Your task to perform on an android device: Go to accessibility settings Image 0: 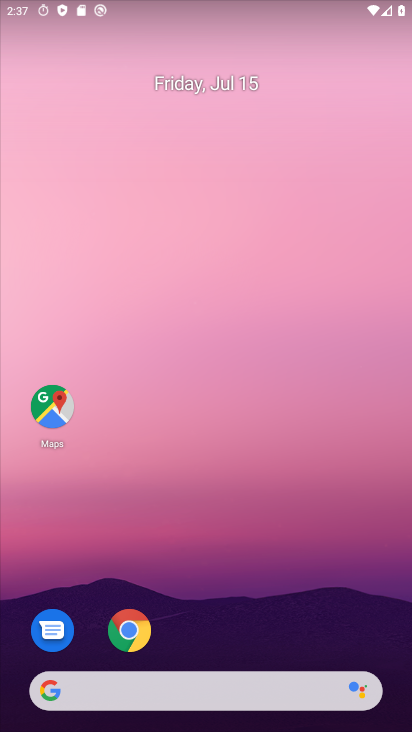
Step 0: drag from (255, 636) to (367, 13)
Your task to perform on an android device: Go to accessibility settings Image 1: 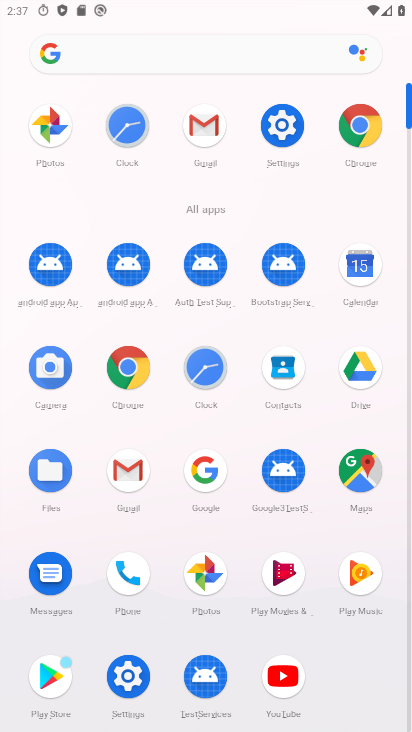
Step 1: click (282, 123)
Your task to perform on an android device: Go to accessibility settings Image 2: 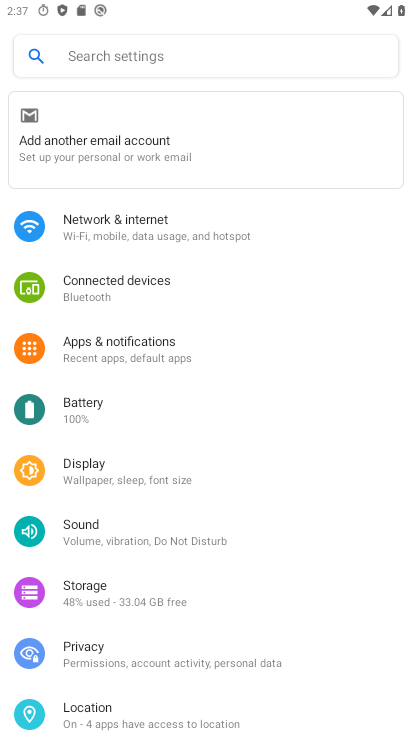
Step 2: drag from (163, 654) to (159, 239)
Your task to perform on an android device: Go to accessibility settings Image 3: 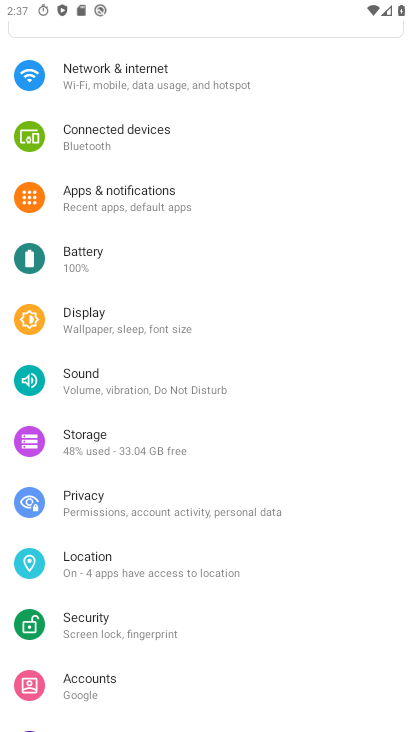
Step 3: click (208, 5)
Your task to perform on an android device: Go to accessibility settings Image 4: 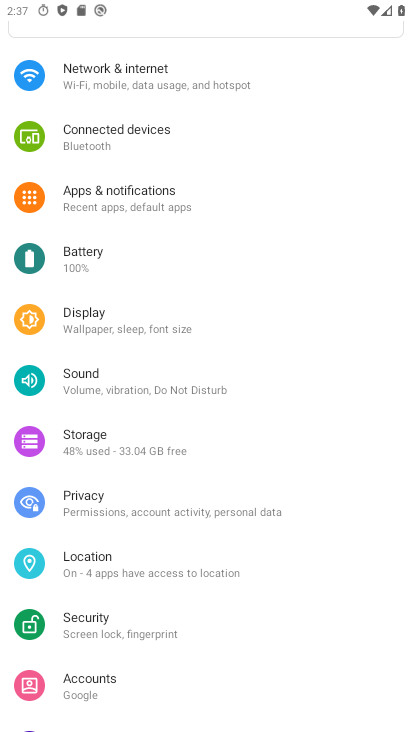
Step 4: drag from (201, 537) to (191, 133)
Your task to perform on an android device: Go to accessibility settings Image 5: 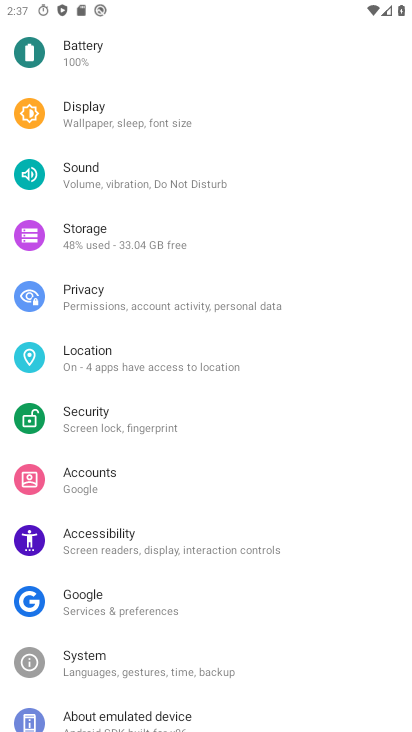
Step 5: click (159, 544)
Your task to perform on an android device: Go to accessibility settings Image 6: 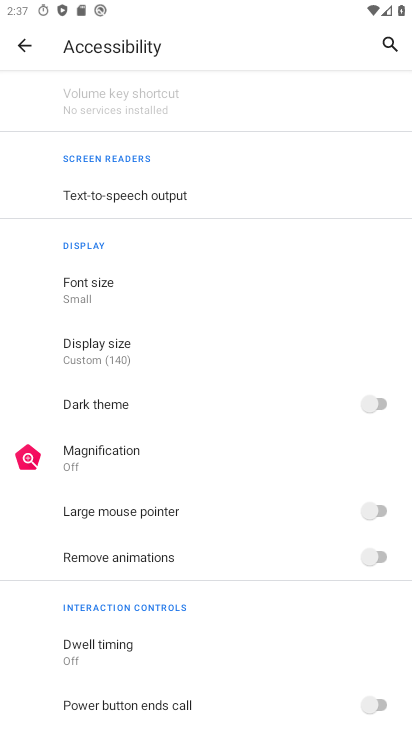
Step 6: task complete